Your task to perform on an android device: Open CNN.com Image 0: 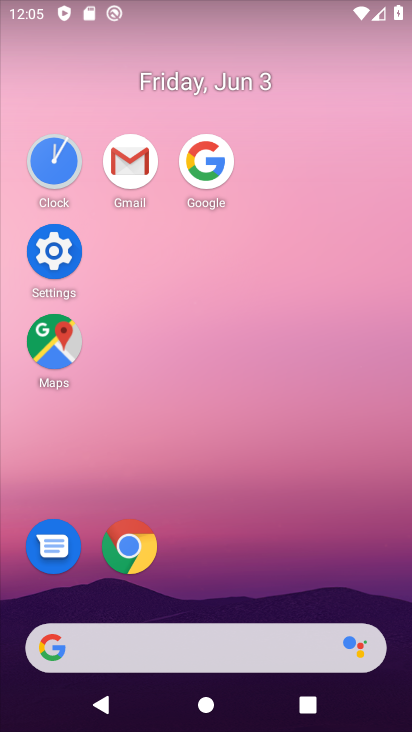
Step 0: click (217, 159)
Your task to perform on an android device: Open CNN.com Image 1: 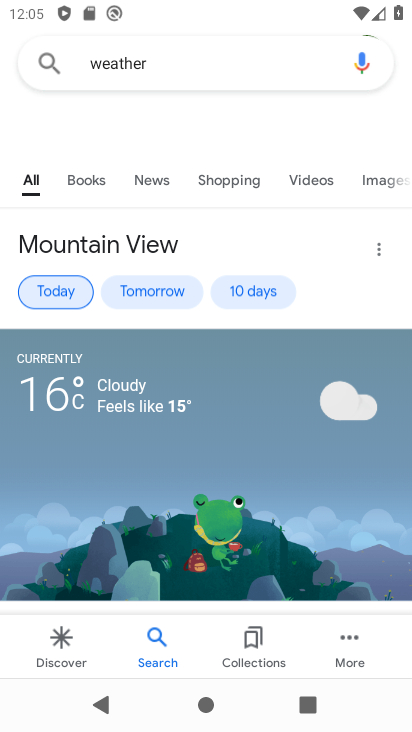
Step 1: click (245, 61)
Your task to perform on an android device: Open CNN.com Image 2: 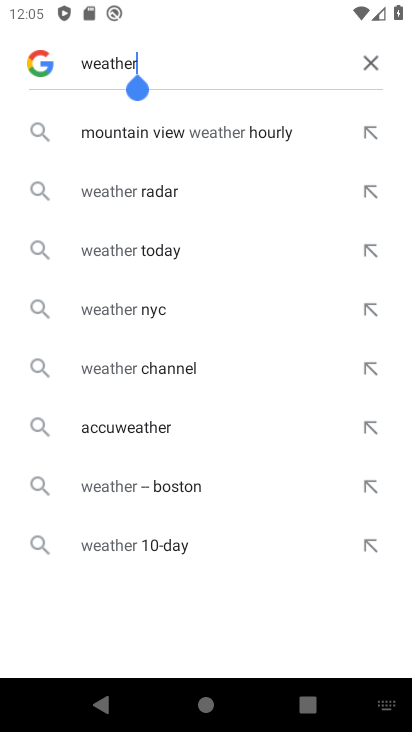
Step 2: click (367, 46)
Your task to perform on an android device: Open CNN.com Image 3: 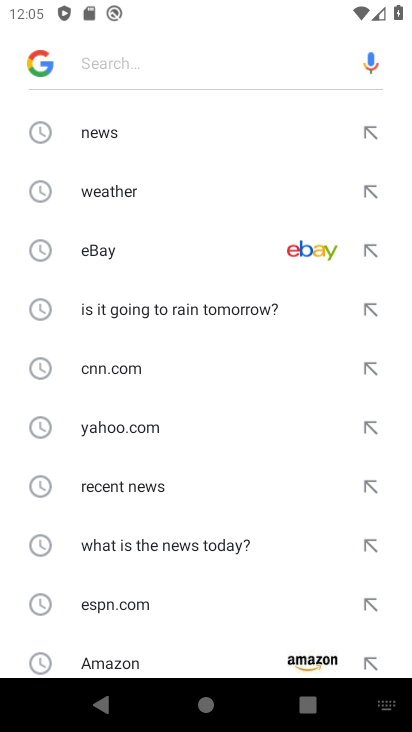
Step 3: click (181, 372)
Your task to perform on an android device: Open CNN.com Image 4: 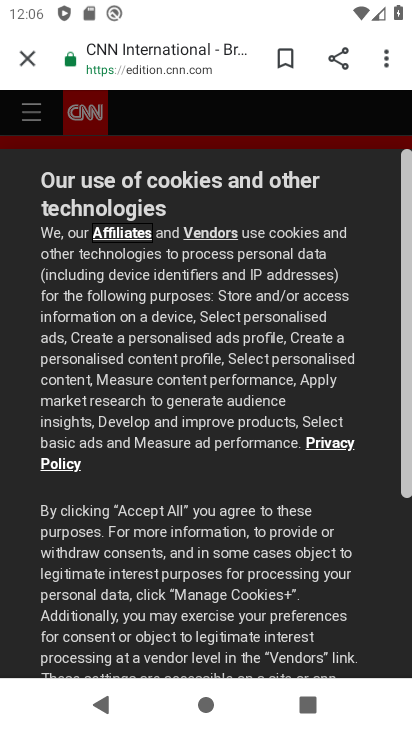
Step 4: task complete